Your task to perform on an android device: Search for Italian restaurants on Maps Image 0: 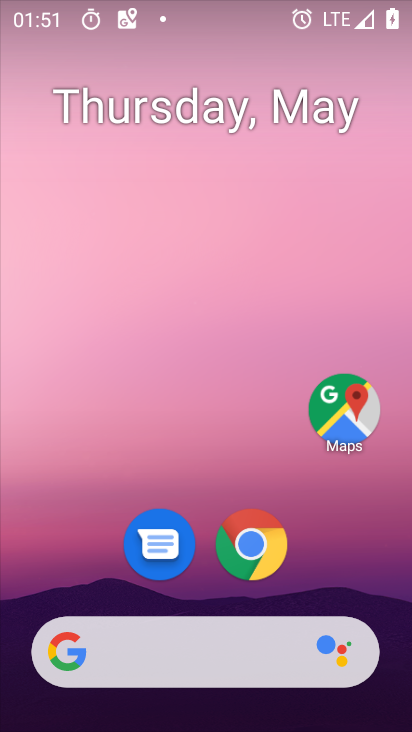
Step 0: drag from (365, 588) to (325, 112)
Your task to perform on an android device: Search for Italian restaurants on Maps Image 1: 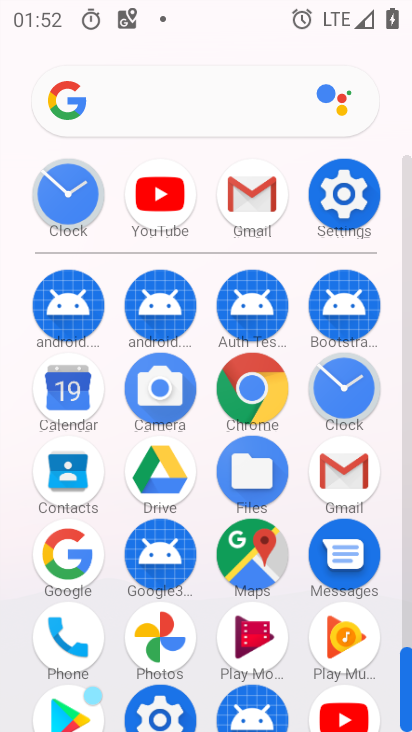
Step 1: click (268, 568)
Your task to perform on an android device: Search for Italian restaurants on Maps Image 2: 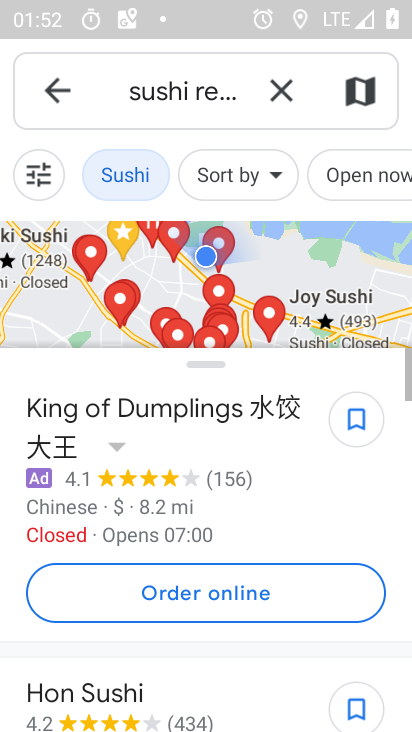
Step 2: click (274, 93)
Your task to perform on an android device: Search for Italian restaurants on Maps Image 3: 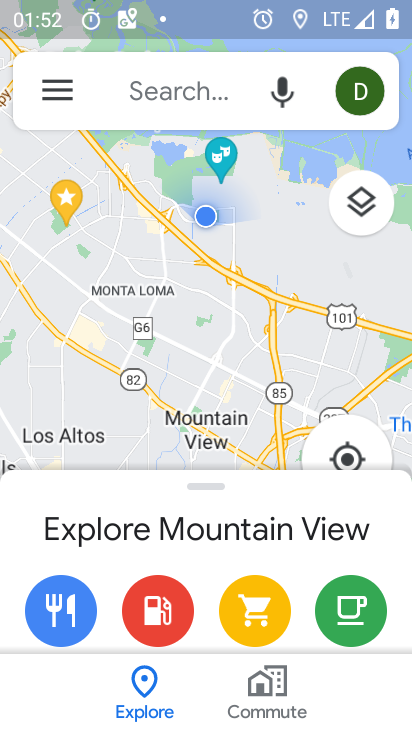
Step 3: click (189, 88)
Your task to perform on an android device: Search for Italian restaurants on Maps Image 4: 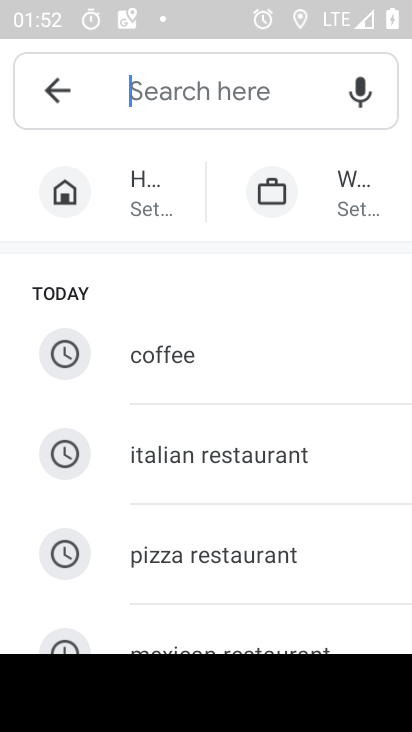
Step 4: type "italian"
Your task to perform on an android device: Search for Italian restaurants on Maps Image 5: 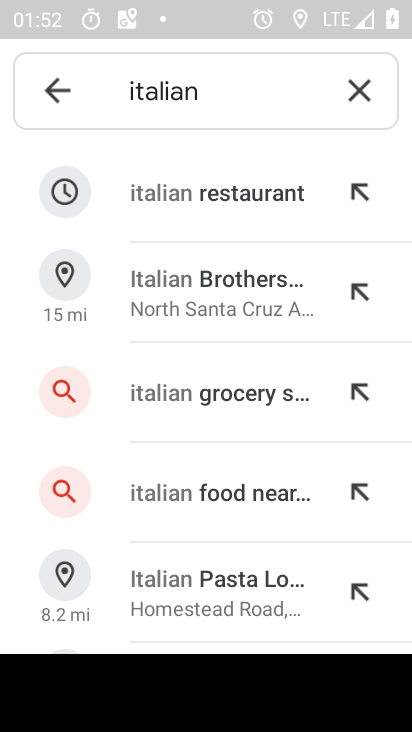
Step 5: click (232, 217)
Your task to perform on an android device: Search for Italian restaurants on Maps Image 6: 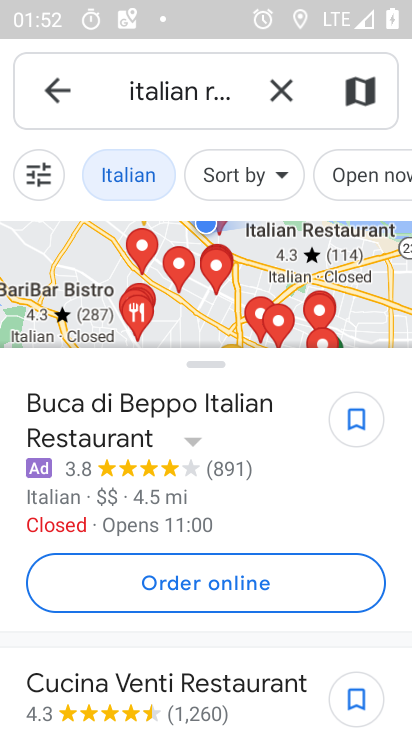
Step 6: task complete